Your task to perform on an android device: Go to ESPN.com Image 0: 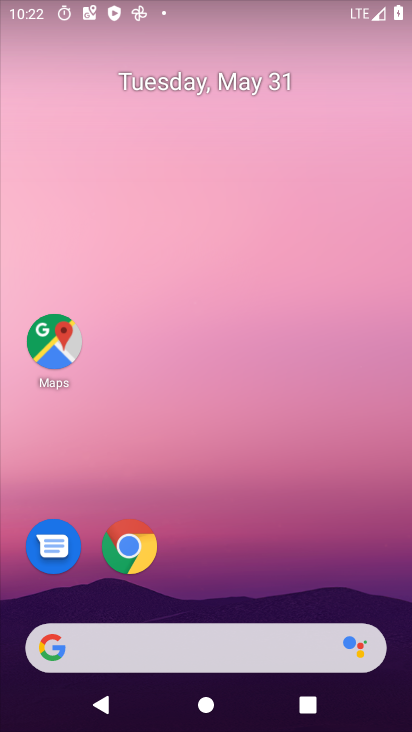
Step 0: click (134, 543)
Your task to perform on an android device: Go to ESPN.com Image 1: 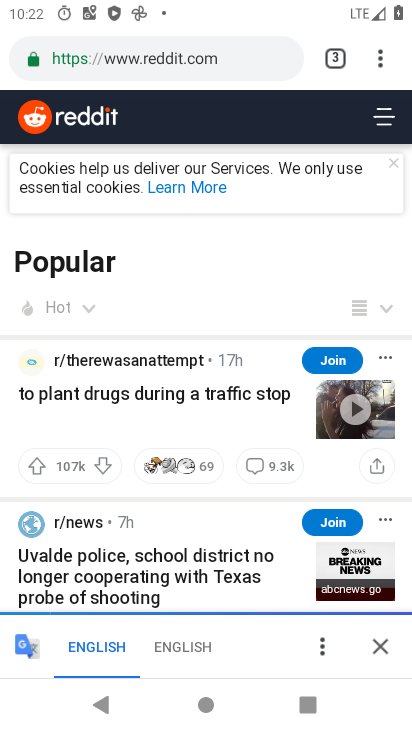
Step 1: click (345, 61)
Your task to perform on an android device: Go to ESPN.com Image 2: 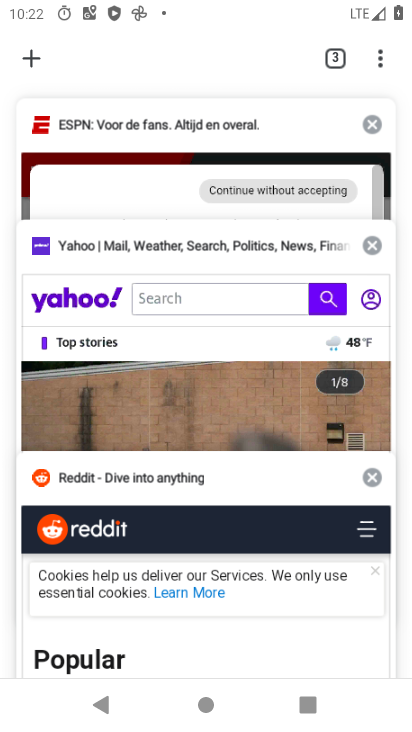
Step 2: click (94, 172)
Your task to perform on an android device: Go to ESPN.com Image 3: 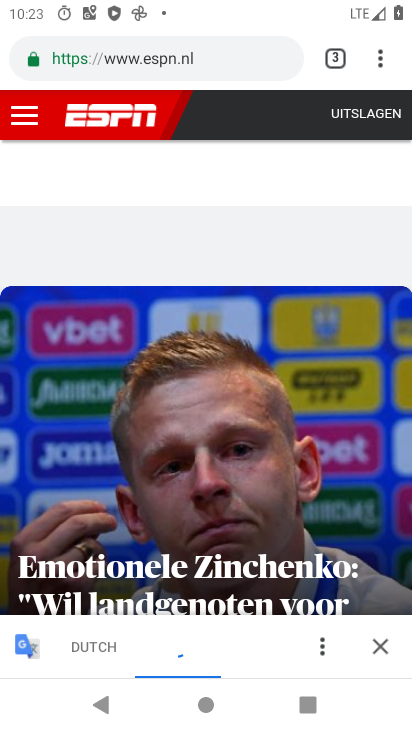
Step 3: task complete